Your task to perform on an android device: Turn off the flashlight Image 0: 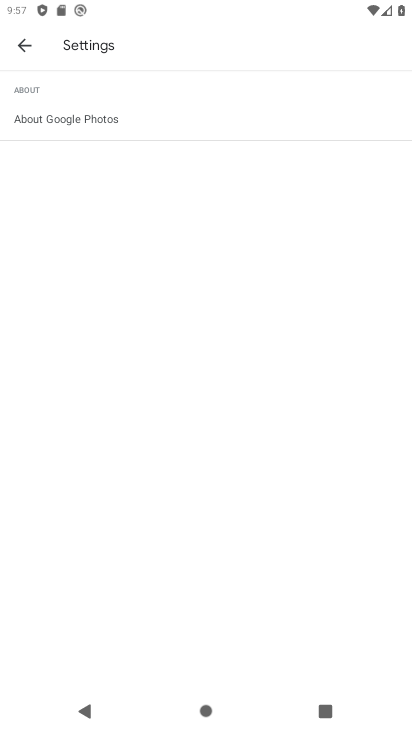
Step 0: press home button
Your task to perform on an android device: Turn off the flashlight Image 1: 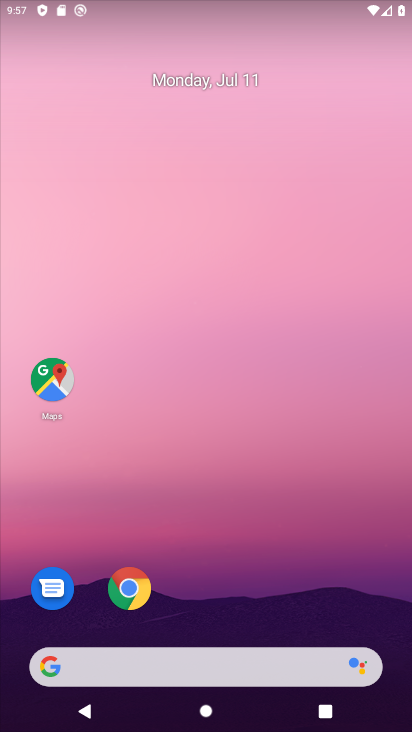
Step 1: drag from (274, 600) to (377, 19)
Your task to perform on an android device: Turn off the flashlight Image 2: 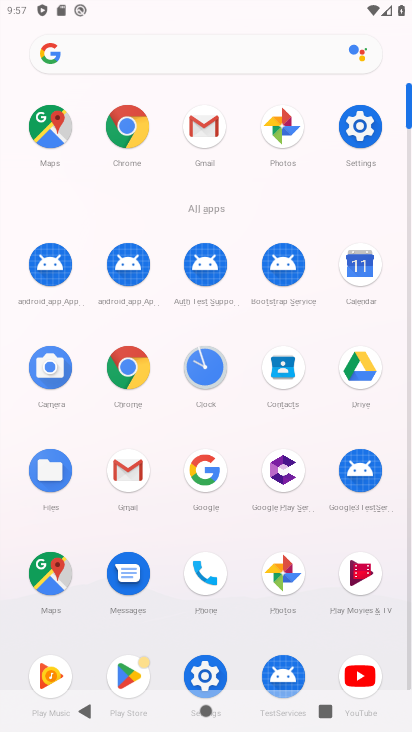
Step 2: click (353, 134)
Your task to perform on an android device: Turn off the flashlight Image 3: 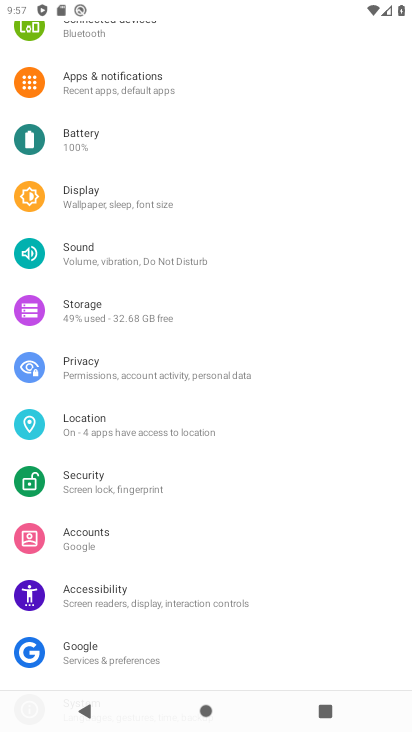
Step 3: drag from (169, 93) to (157, 627)
Your task to perform on an android device: Turn off the flashlight Image 4: 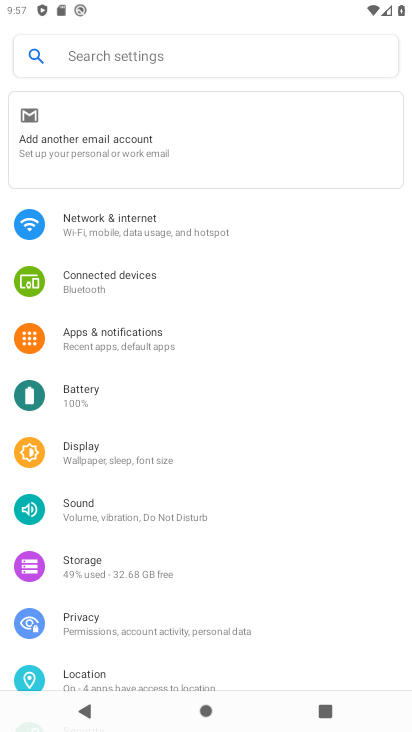
Step 4: click (135, 56)
Your task to perform on an android device: Turn off the flashlight Image 5: 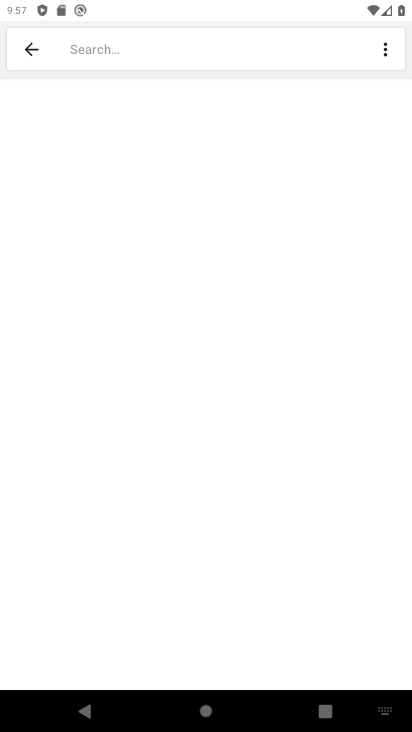
Step 5: type "flashlight"
Your task to perform on an android device: Turn off the flashlight Image 6: 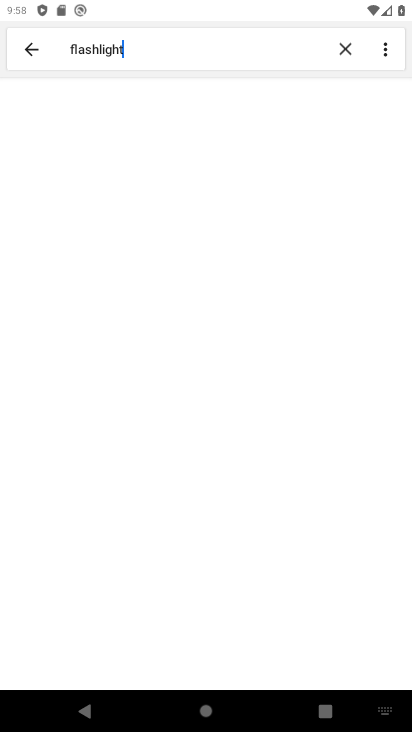
Step 6: click (160, 137)
Your task to perform on an android device: Turn off the flashlight Image 7: 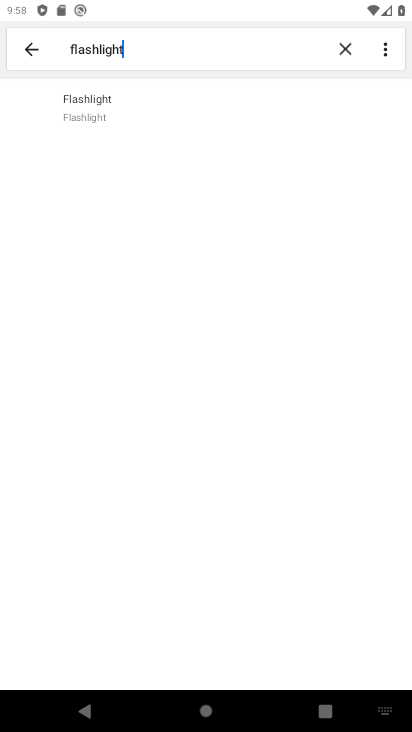
Step 7: click (103, 115)
Your task to perform on an android device: Turn off the flashlight Image 8: 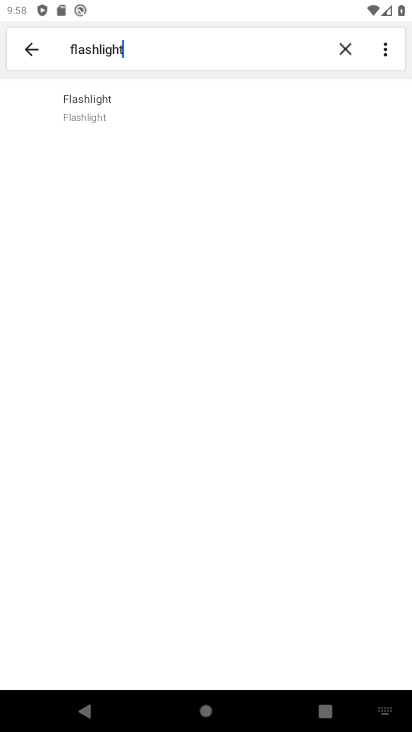
Step 8: task complete